Your task to perform on an android device: Open sound settings Image 0: 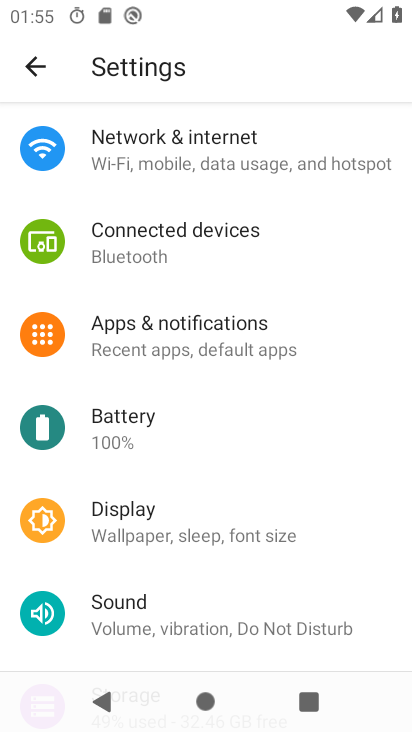
Step 0: drag from (189, 569) to (232, 268)
Your task to perform on an android device: Open sound settings Image 1: 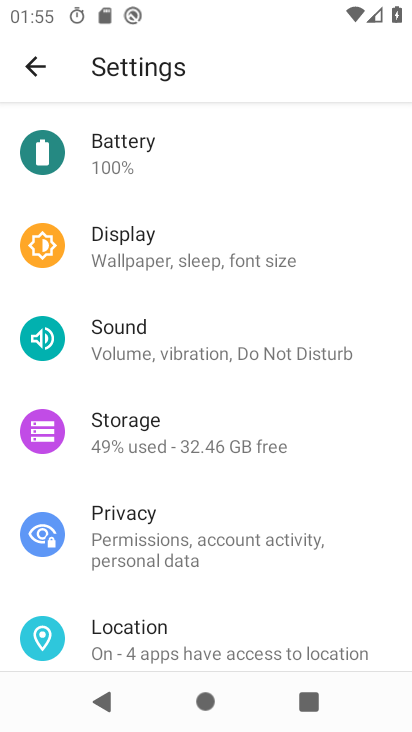
Step 1: click (214, 344)
Your task to perform on an android device: Open sound settings Image 2: 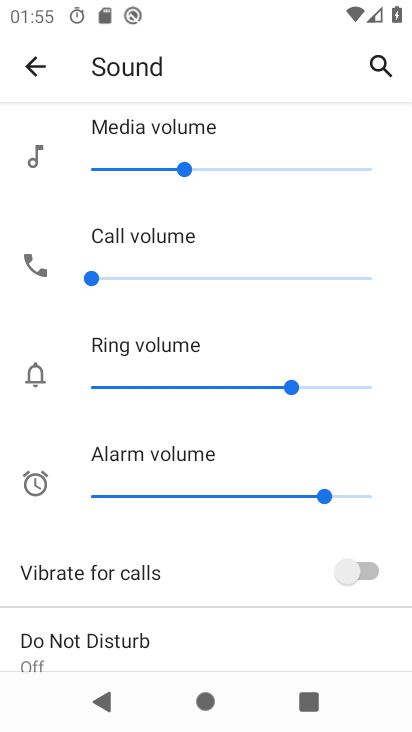
Step 2: task complete